Your task to perform on an android device: open chrome and create a bookmark for the current page Image 0: 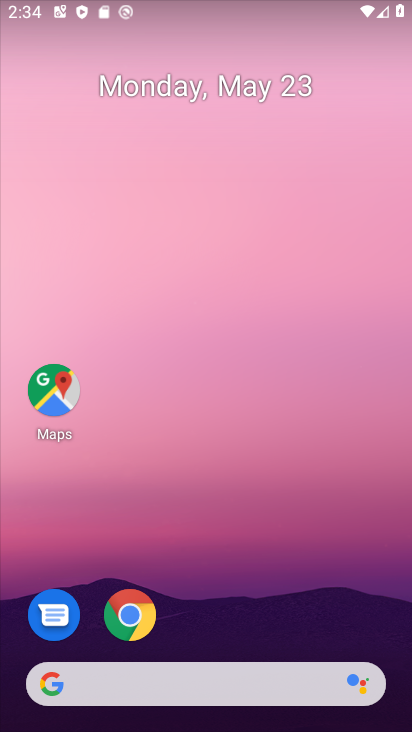
Step 0: drag from (377, 634) to (360, 142)
Your task to perform on an android device: open chrome and create a bookmark for the current page Image 1: 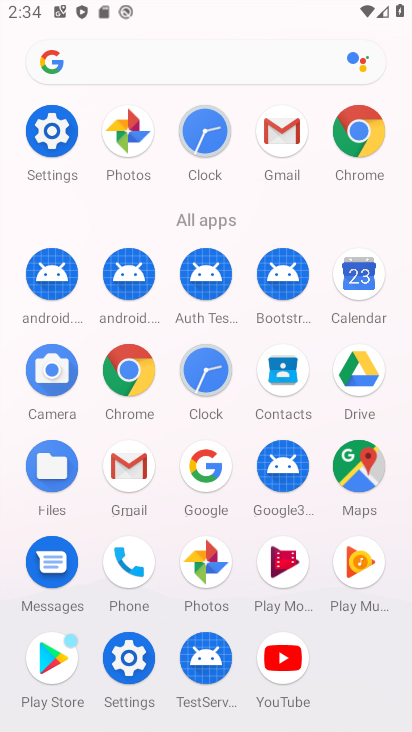
Step 1: click (132, 382)
Your task to perform on an android device: open chrome and create a bookmark for the current page Image 2: 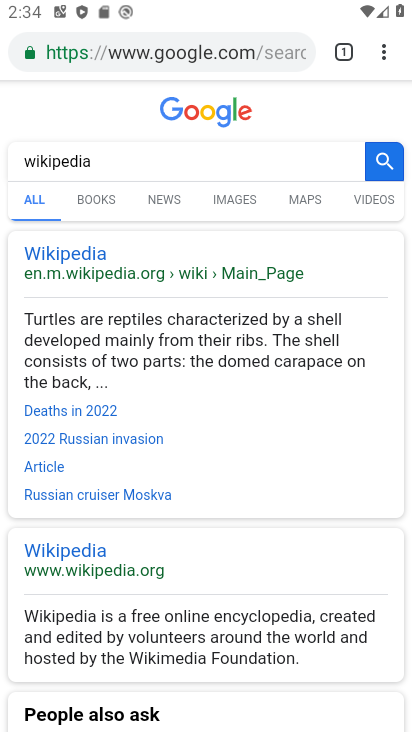
Step 2: click (383, 59)
Your task to perform on an android device: open chrome and create a bookmark for the current page Image 3: 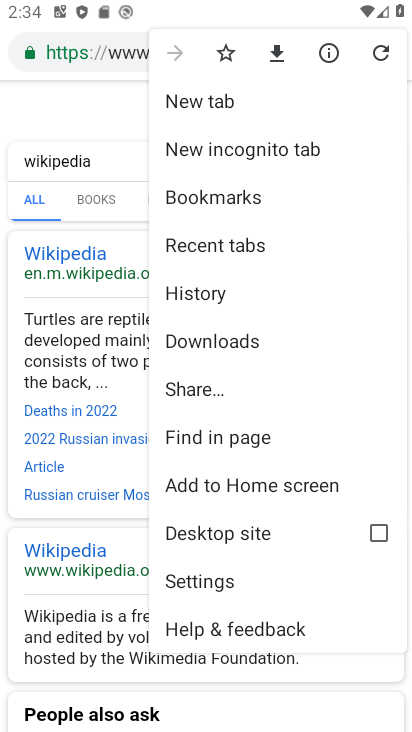
Step 3: click (223, 52)
Your task to perform on an android device: open chrome and create a bookmark for the current page Image 4: 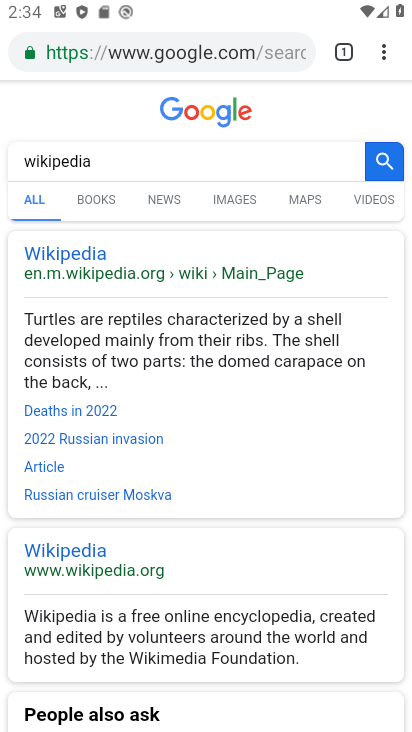
Step 4: task complete